Your task to perform on an android device: turn on sleep mode Image 0: 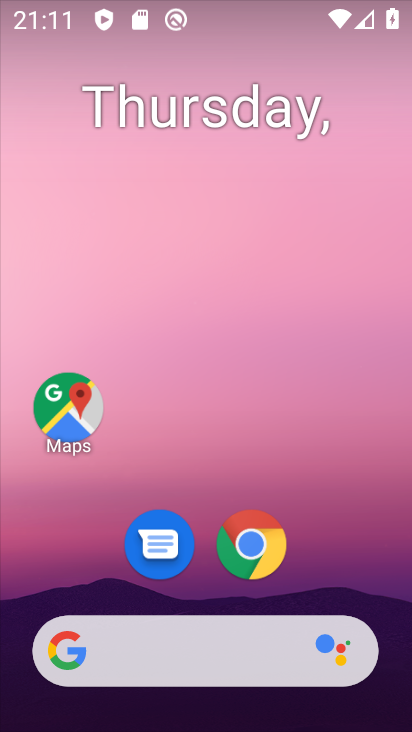
Step 0: drag from (258, 641) to (272, 78)
Your task to perform on an android device: turn on sleep mode Image 1: 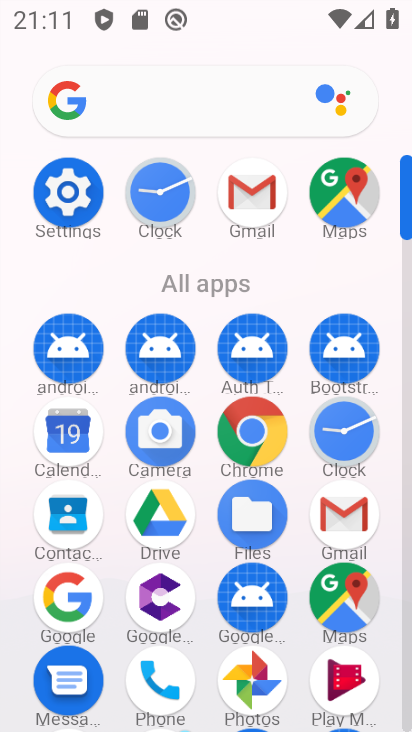
Step 1: click (71, 198)
Your task to perform on an android device: turn on sleep mode Image 2: 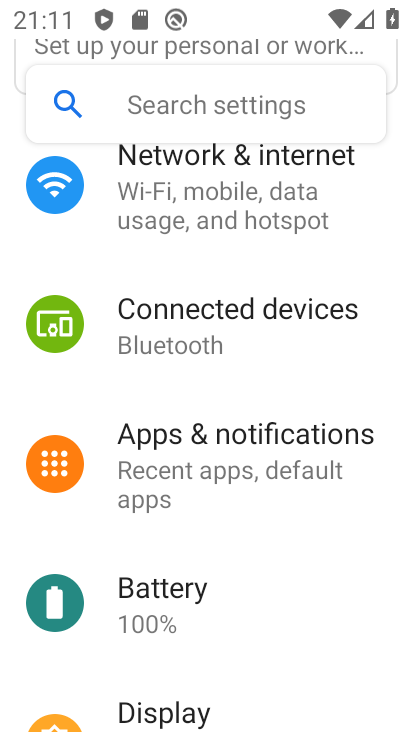
Step 2: drag from (291, 575) to (268, 184)
Your task to perform on an android device: turn on sleep mode Image 3: 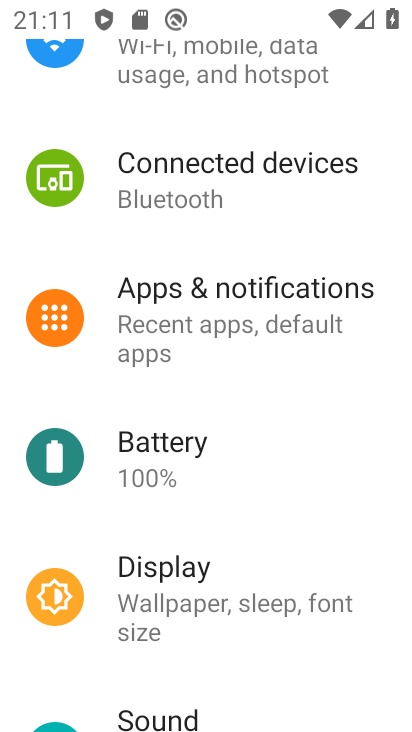
Step 3: click (306, 583)
Your task to perform on an android device: turn on sleep mode Image 4: 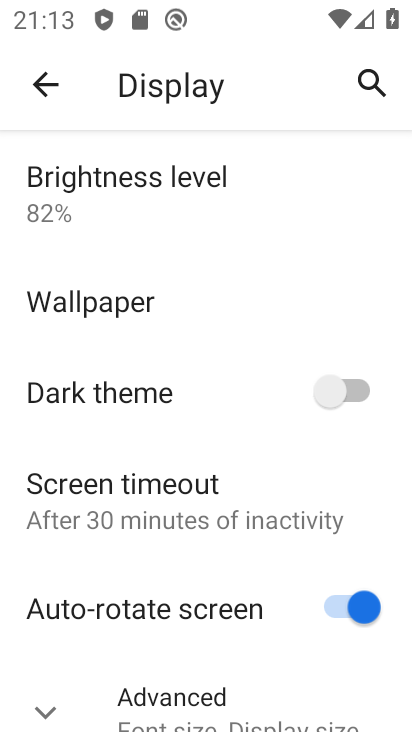
Step 4: task complete